Your task to perform on an android device: See recent photos Image 0: 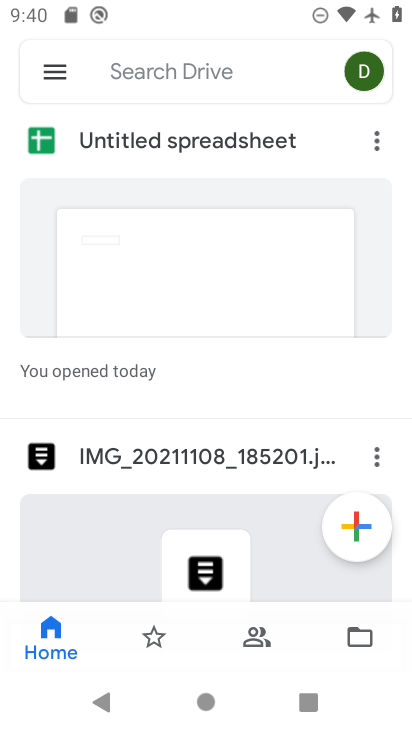
Step 0: press home button
Your task to perform on an android device: See recent photos Image 1: 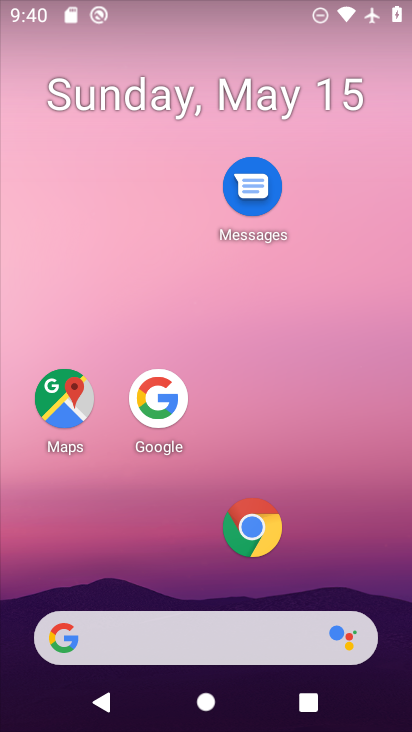
Step 1: drag from (191, 632) to (313, 234)
Your task to perform on an android device: See recent photos Image 2: 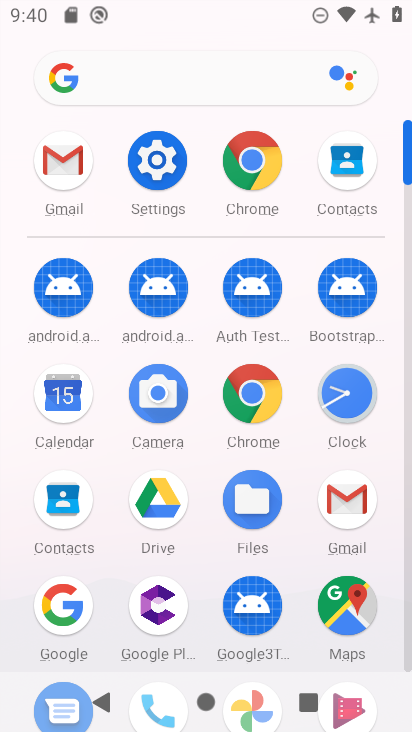
Step 2: drag from (200, 612) to (314, 237)
Your task to perform on an android device: See recent photos Image 3: 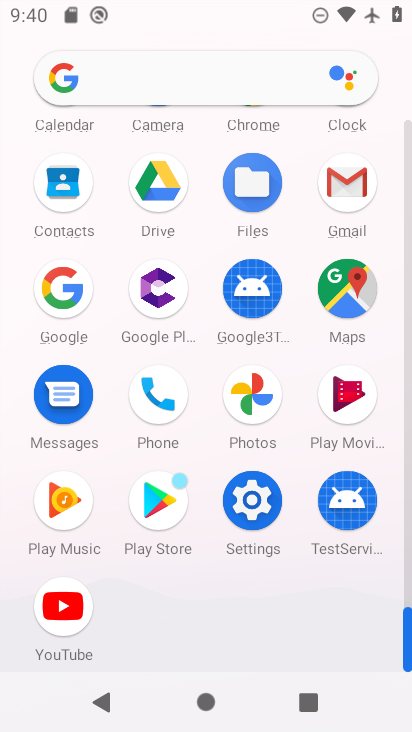
Step 3: click (254, 401)
Your task to perform on an android device: See recent photos Image 4: 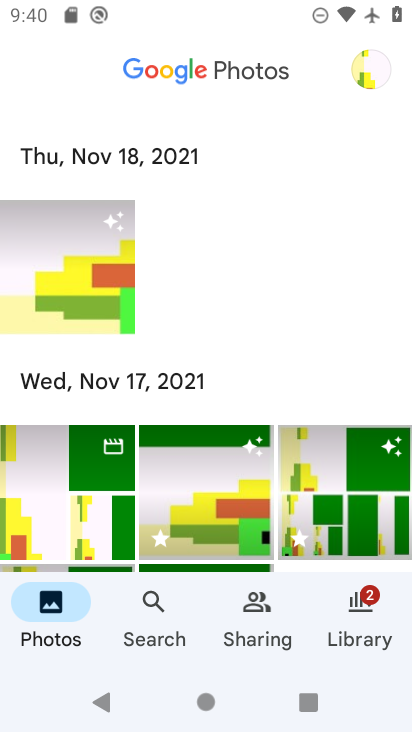
Step 4: click (154, 630)
Your task to perform on an android device: See recent photos Image 5: 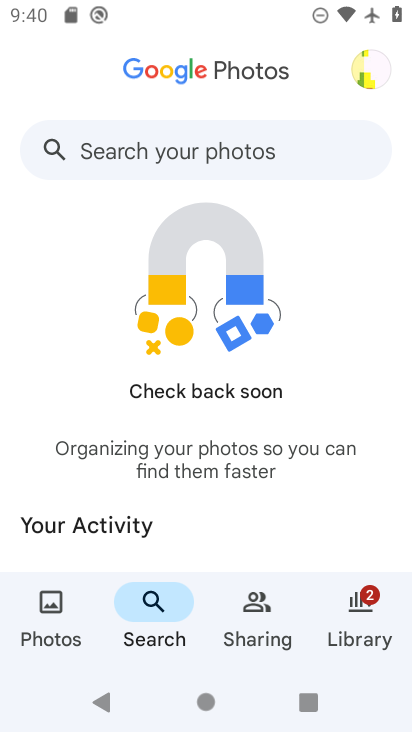
Step 5: drag from (265, 436) to (351, 174)
Your task to perform on an android device: See recent photos Image 6: 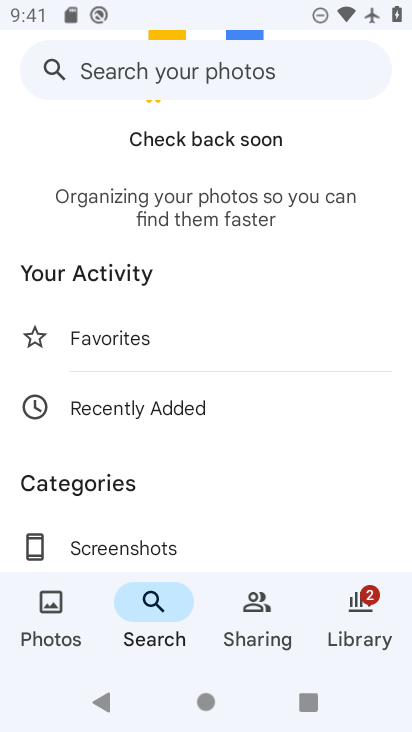
Step 6: click (164, 410)
Your task to perform on an android device: See recent photos Image 7: 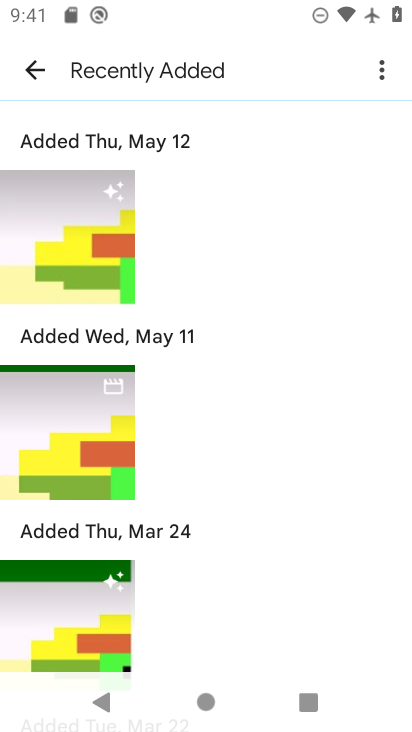
Step 7: task complete